Your task to perform on an android device: turn on showing notifications on the lock screen Image 0: 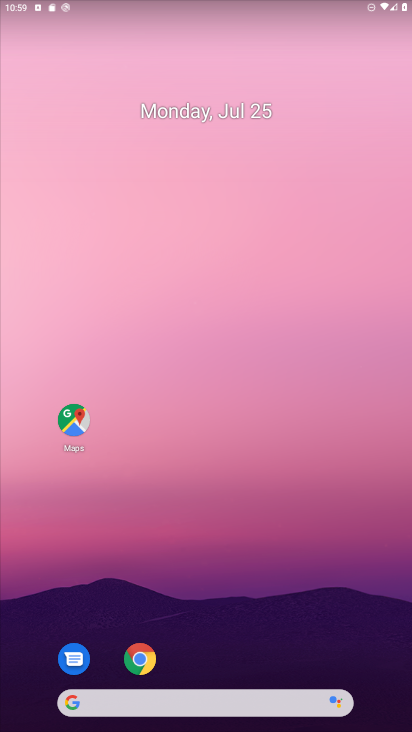
Step 0: drag from (209, 658) to (219, 276)
Your task to perform on an android device: turn on showing notifications on the lock screen Image 1: 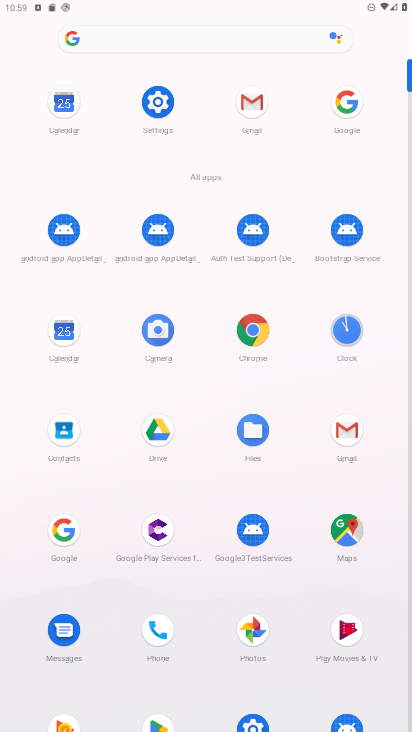
Step 1: click (152, 118)
Your task to perform on an android device: turn on showing notifications on the lock screen Image 2: 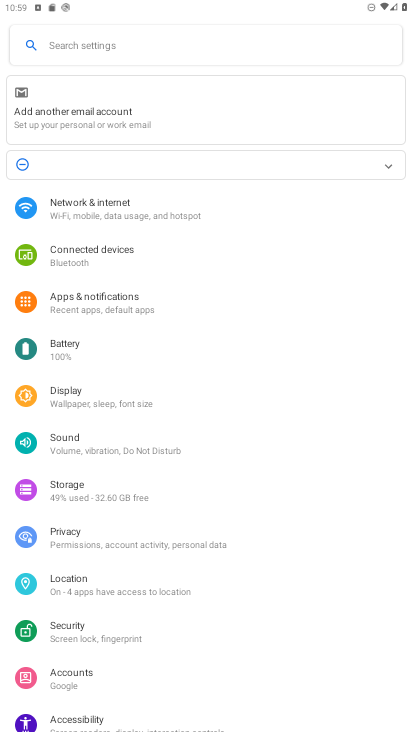
Step 2: click (128, 301)
Your task to perform on an android device: turn on showing notifications on the lock screen Image 3: 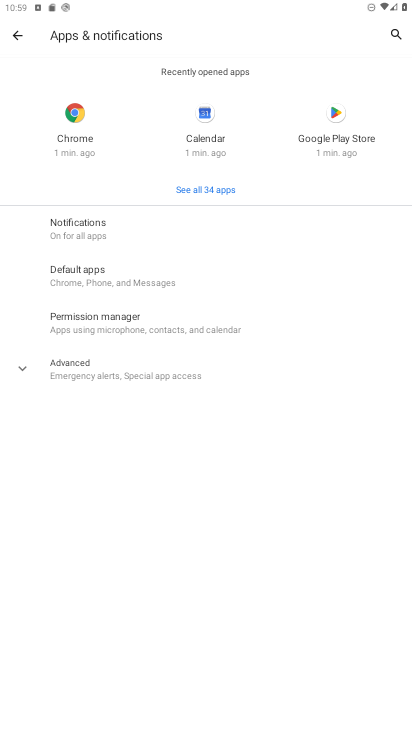
Step 3: click (108, 234)
Your task to perform on an android device: turn on showing notifications on the lock screen Image 4: 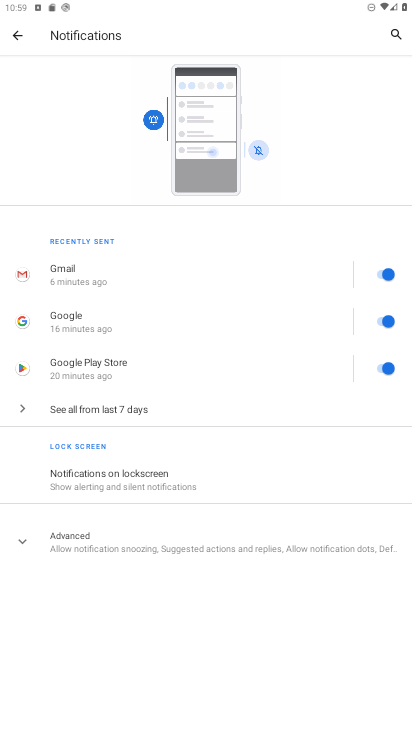
Step 4: click (136, 484)
Your task to perform on an android device: turn on showing notifications on the lock screen Image 5: 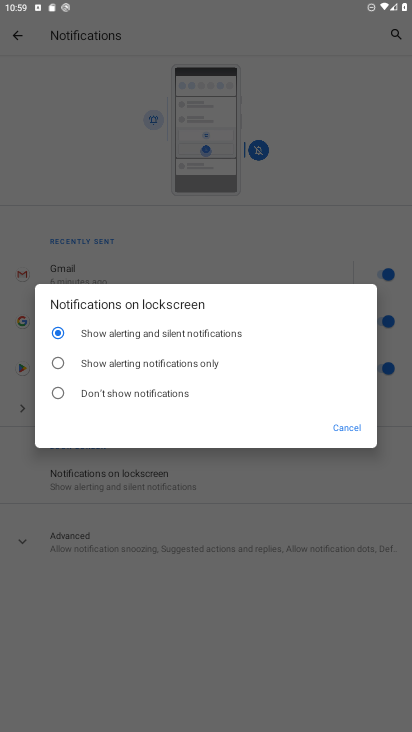
Step 5: task complete